Your task to perform on an android device: Open Reddit.com Image 0: 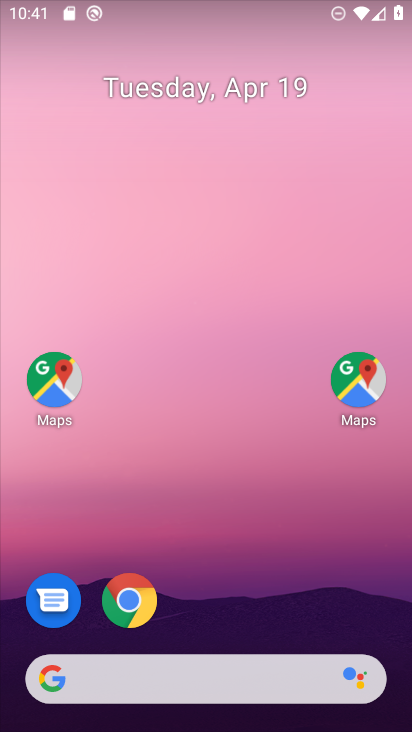
Step 0: drag from (303, 296) to (286, 125)
Your task to perform on an android device: Open Reddit.com Image 1: 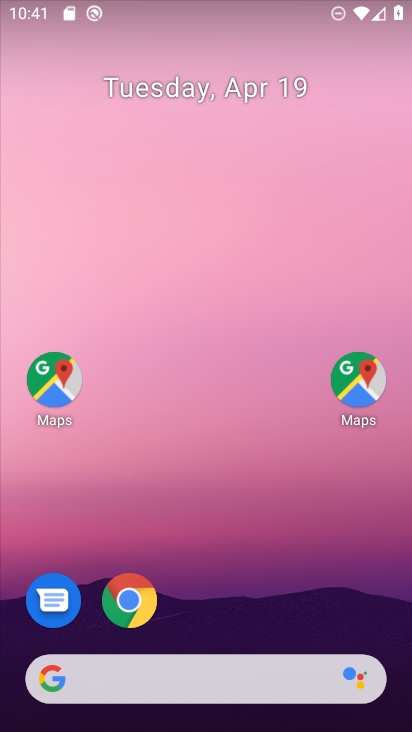
Step 1: drag from (308, 590) to (225, 0)
Your task to perform on an android device: Open Reddit.com Image 2: 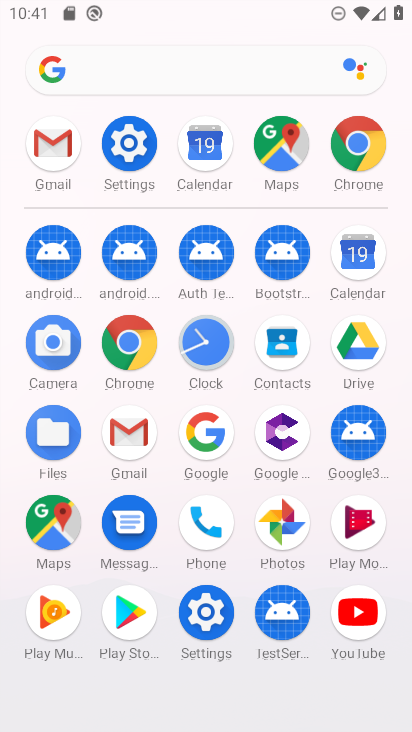
Step 2: click (105, 345)
Your task to perform on an android device: Open Reddit.com Image 3: 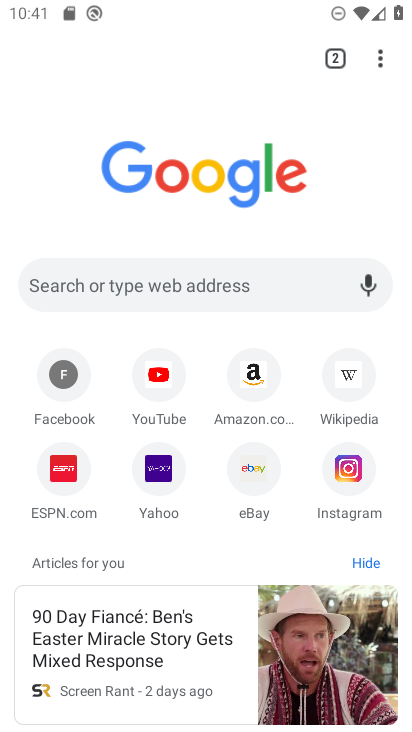
Step 3: click (274, 296)
Your task to perform on an android device: Open Reddit.com Image 4: 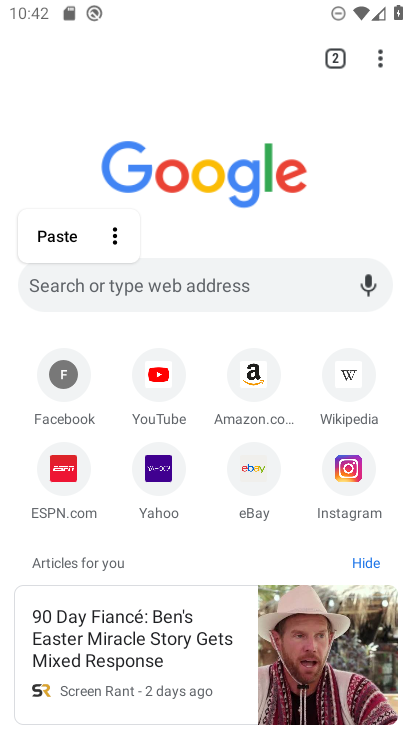
Step 4: type "reddit.com"
Your task to perform on an android device: Open Reddit.com Image 5: 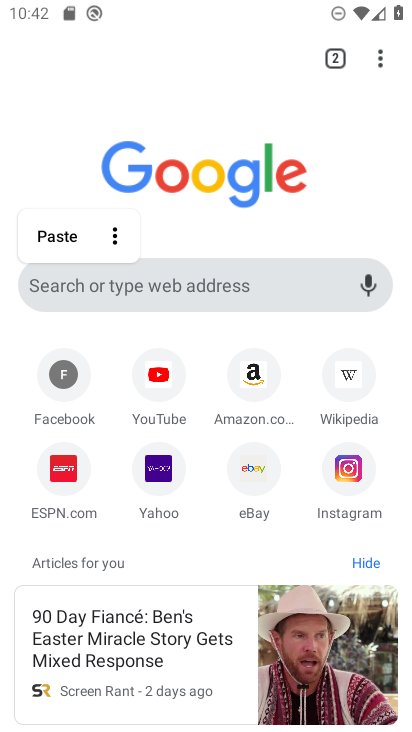
Step 5: click (99, 287)
Your task to perform on an android device: Open Reddit.com Image 6: 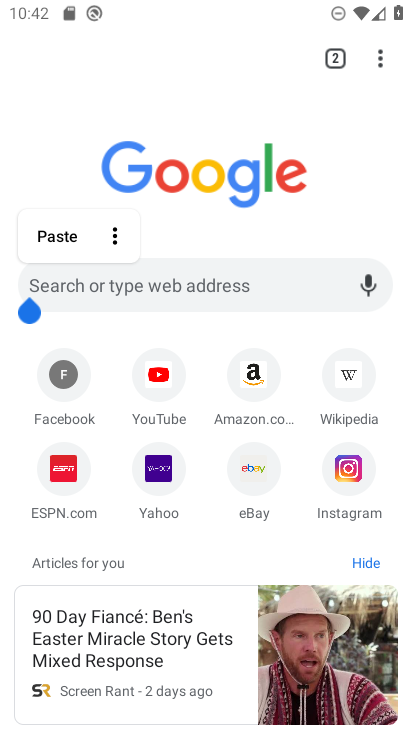
Step 6: click (266, 289)
Your task to perform on an android device: Open Reddit.com Image 7: 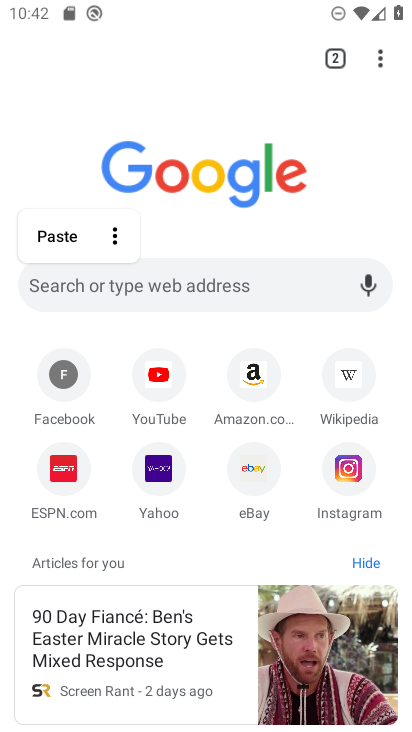
Step 7: type "r"
Your task to perform on an android device: Open Reddit.com Image 8: 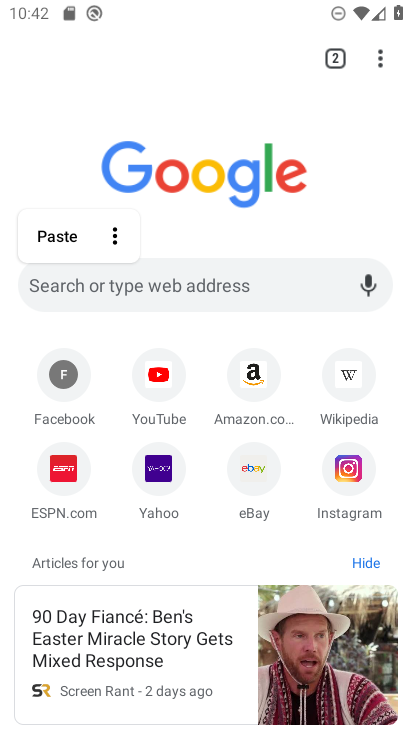
Step 8: click (374, 50)
Your task to perform on an android device: Open Reddit.com Image 9: 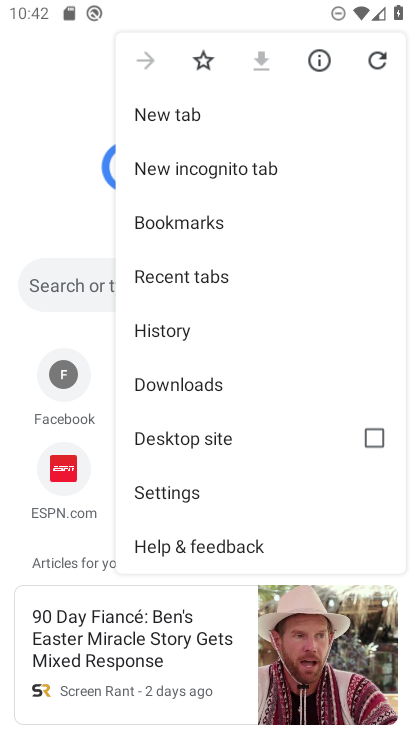
Step 9: click (238, 114)
Your task to perform on an android device: Open Reddit.com Image 10: 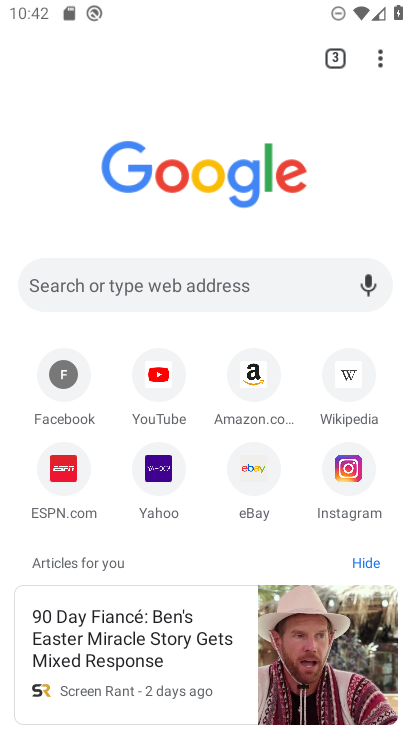
Step 10: drag from (271, 265) to (323, 552)
Your task to perform on an android device: Open Reddit.com Image 11: 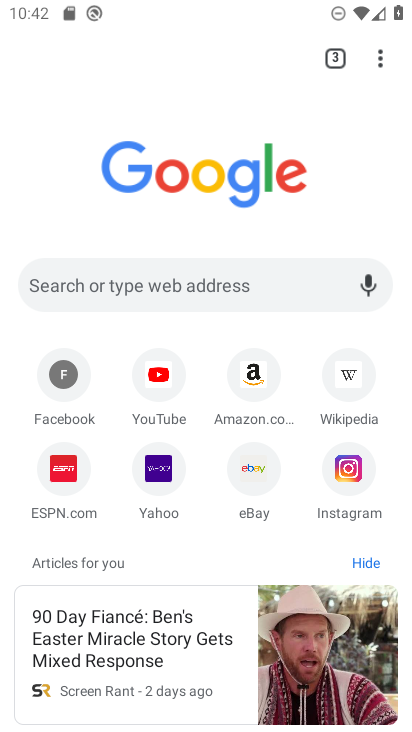
Step 11: click (205, 298)
Your task to perform on an android device: Open Reddit.com Image 12: 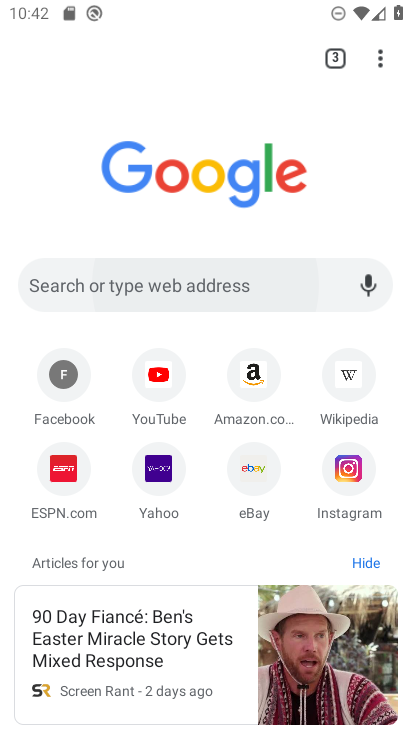
Step 12: click (205, 298)
Your task to perform on an android device: Open Reddit.com Image 13: 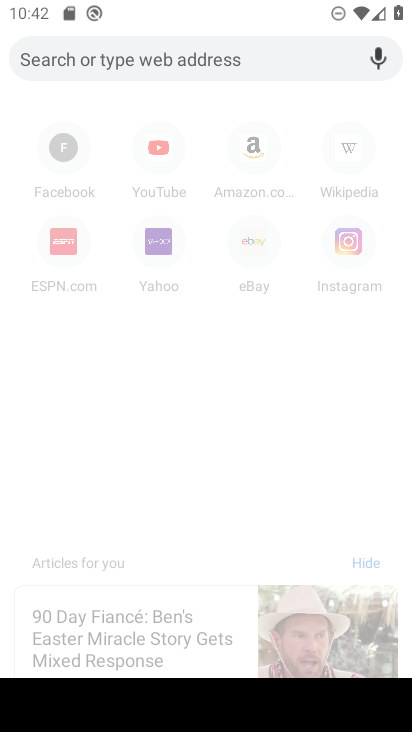
Step 13: type "reddit.com"
Your task to perform on an android device: Open Reddit.com Image 14: 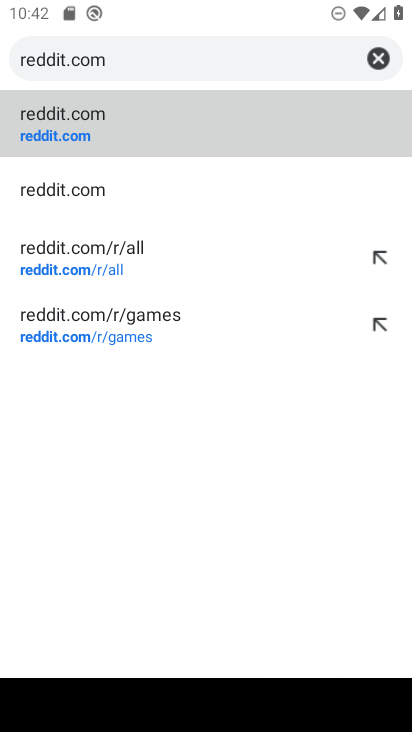
Step 14: click (243, 132)
Your task to perform on an android device: Open Reddit.com Image 15: 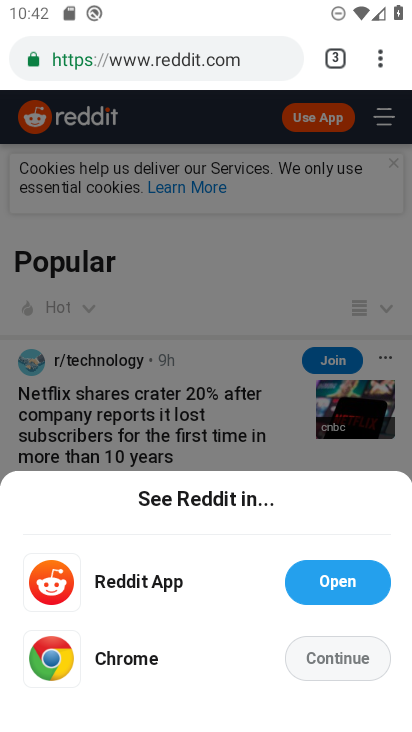
Step 15: task complete